Your task to perform on an android device: Open wifi settings Image 0: 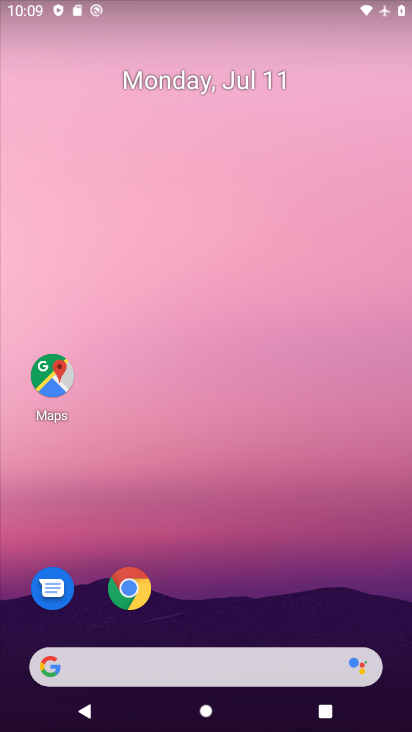
Step 0: drag from (181, 662) to (332, 98)
Your task to perform on an android device: Open wifi settings Image 1: 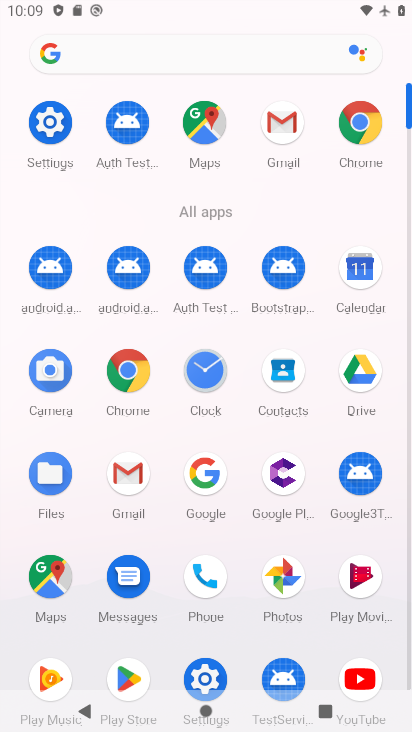
Step 1: click (62, 130)
Your task to perform on an android device: Open wifi settings Image 2: 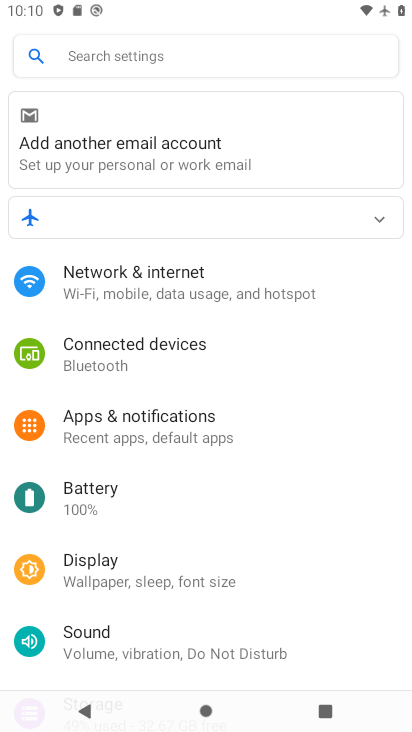
Step 2: click (212, 291)
Your task to perform on an android device: Open wifi settings Image 3: 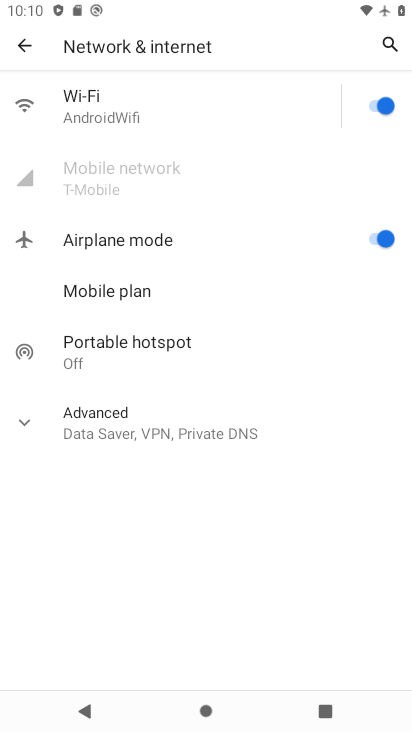
Step 3: click (117, 99)
Your task to perform on an android device: Open wifi settings Image 4: 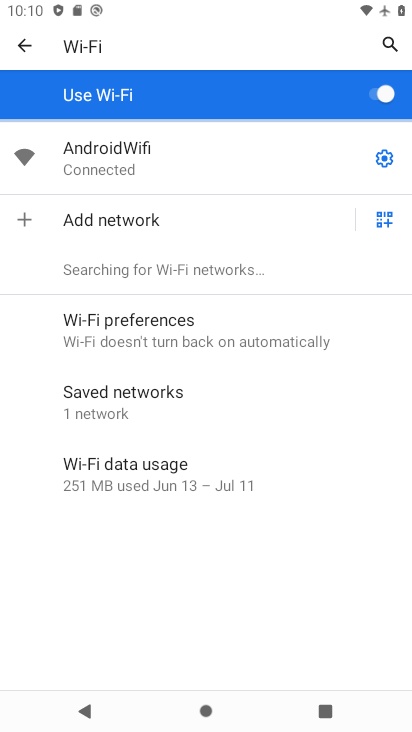
Step 4: task complete